Your task to perform on an android device: Go to Android settings Image 0: 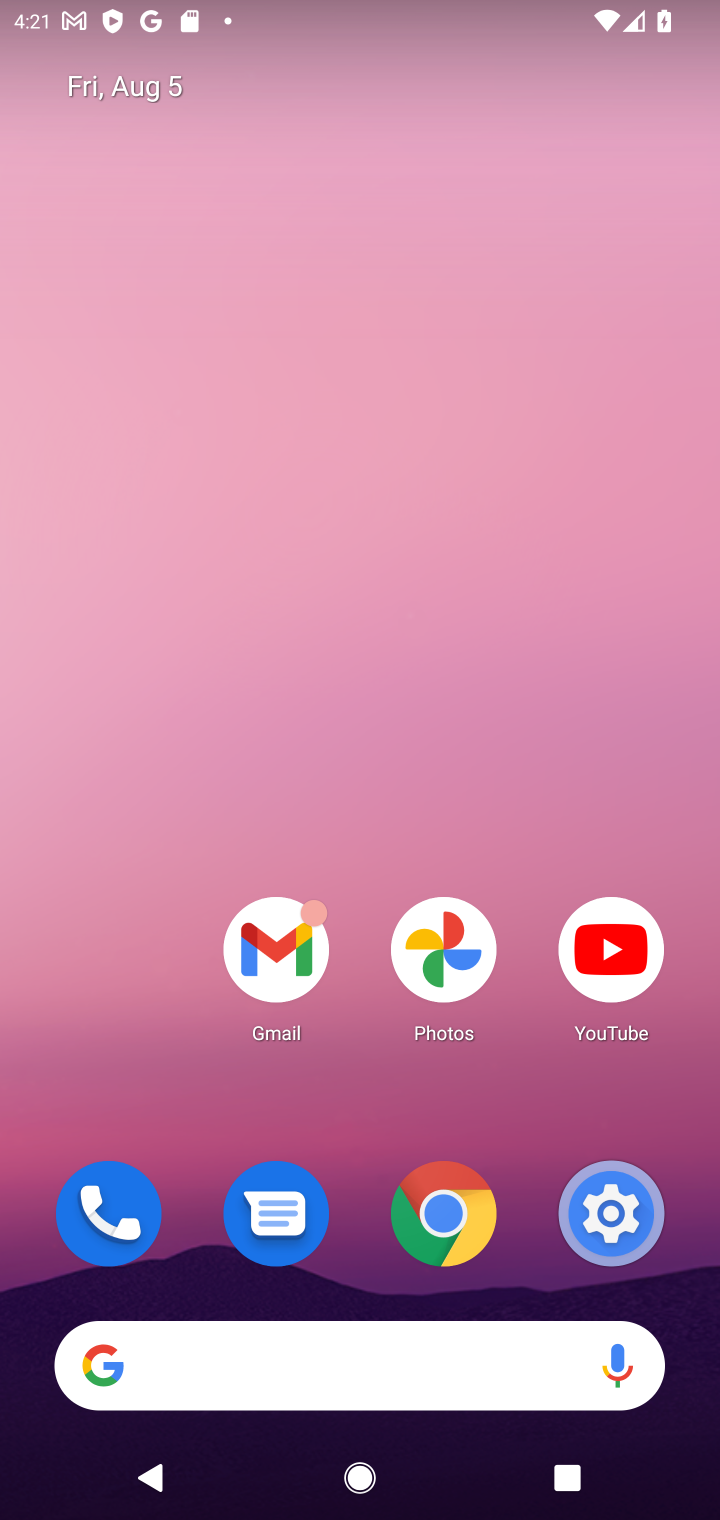
Step 0: click (641, 1199)
Your task to perform on an android device: Go to Android settings Image 1: 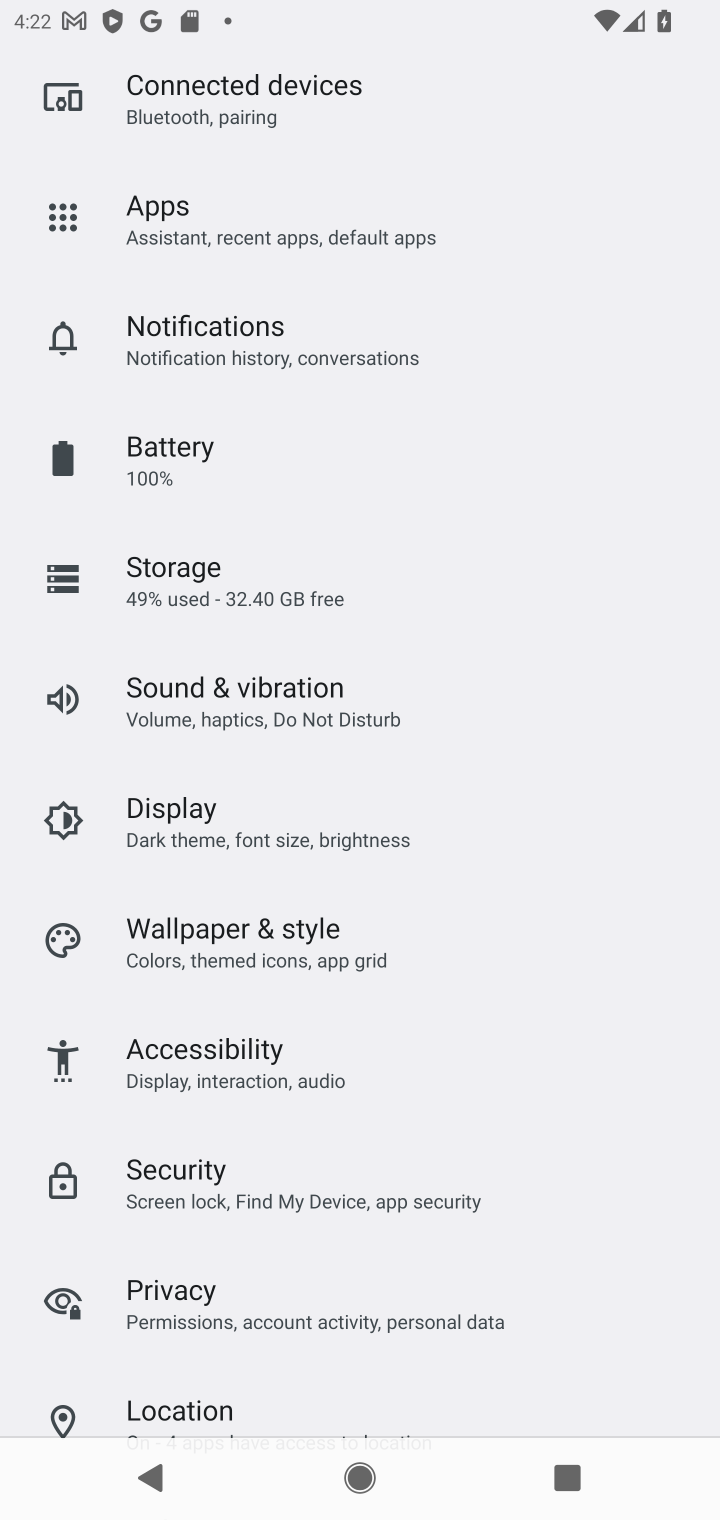
Step 1: task complete